Your task to perform on an android device: What's the weather today? Image 0: 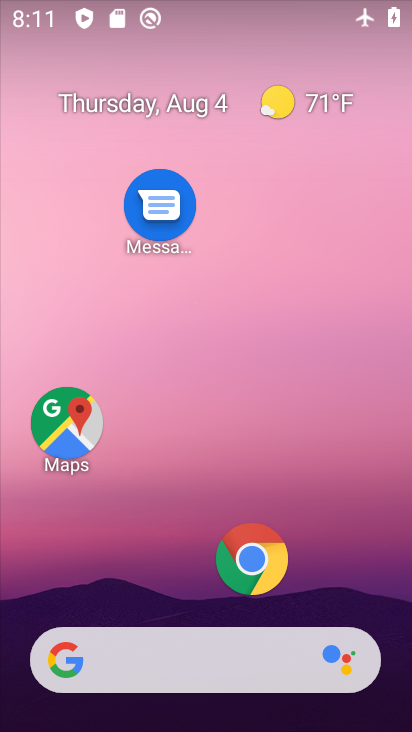
Step 0: drag from (127, 608) to (174, 5)
Your task to perform on an android device: What's the weather today? Image 1: 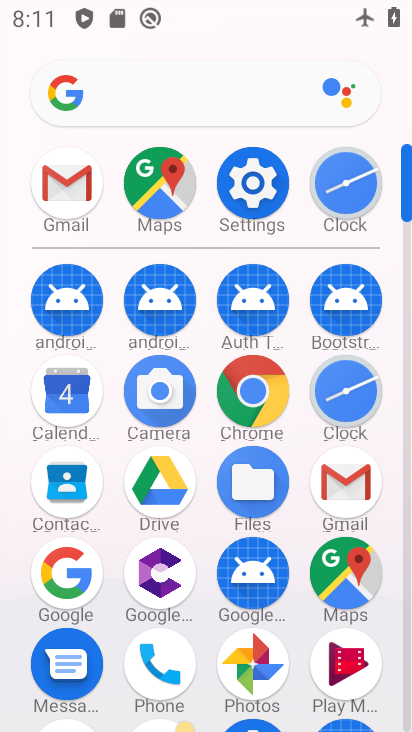
Step 1: click (53, 568)
Your task to perform on an android device: What's the weather today? Image 2: 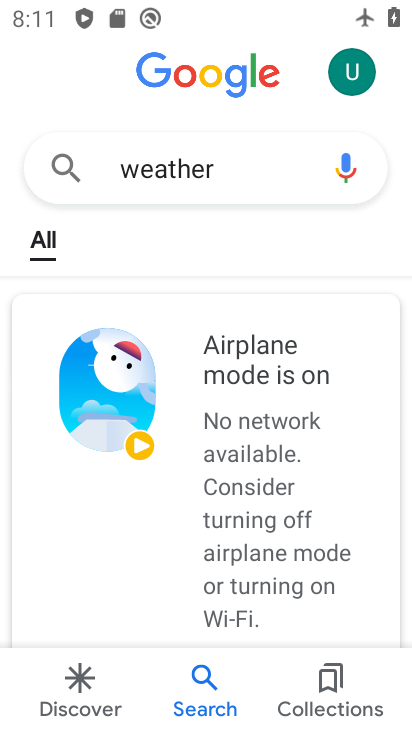
Step 2: task complete